Your task to perform on an android device: find which apps use the phone's location Image 0: 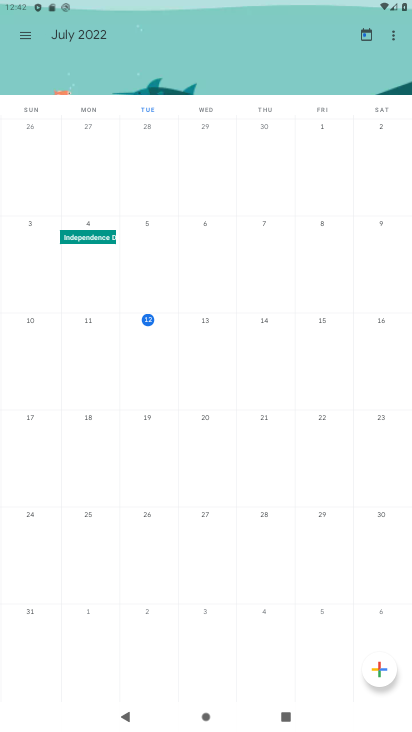
Step 0: press home button
Your task to perform on an android device: find which apps use the phone's location Image 1: 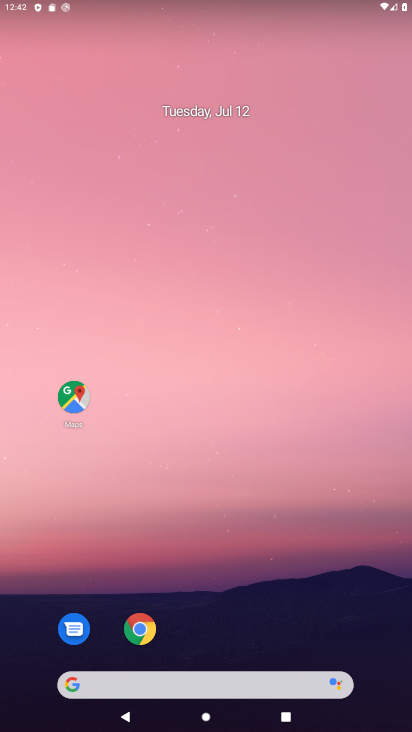
Step 1: drag from (206, 646) to (228, 6)
Your task to perform on an android device: find which apps use the phone's location Image 2: 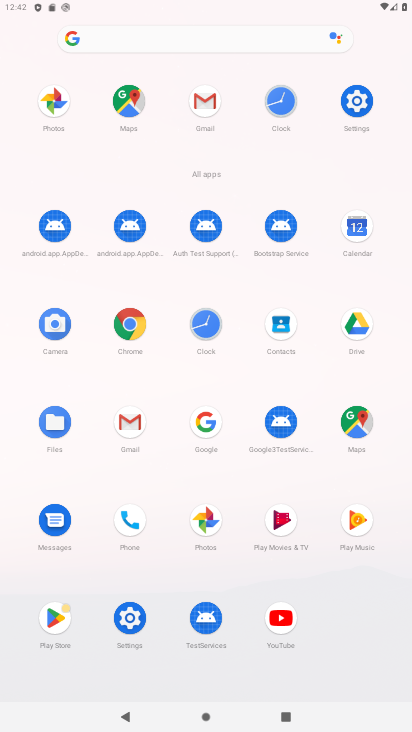
Step 2: click (354, 96)
Your task to perform on an android device: find which apps use the phone's location Image 3: 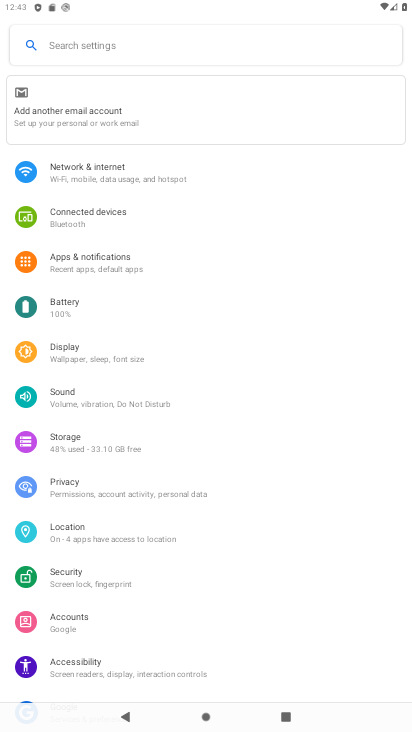
Step 3: click (95, 530)
Your task to perform on an android device: find which apps use the phone's location Image 4: 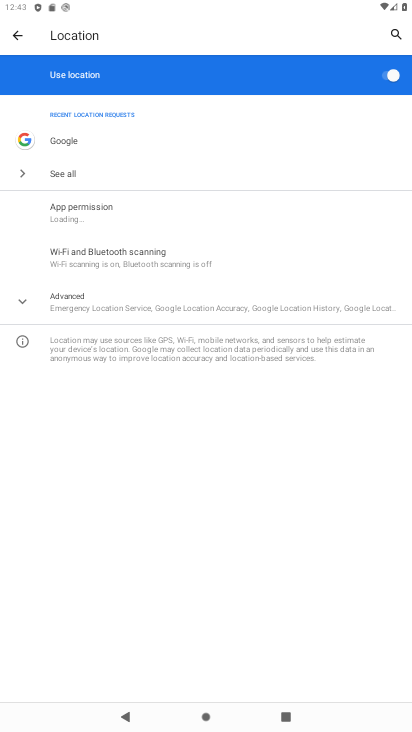
Step 4: click (106, 212)
Your task to perform on an android device: find which apps use the phone's location Image 5: 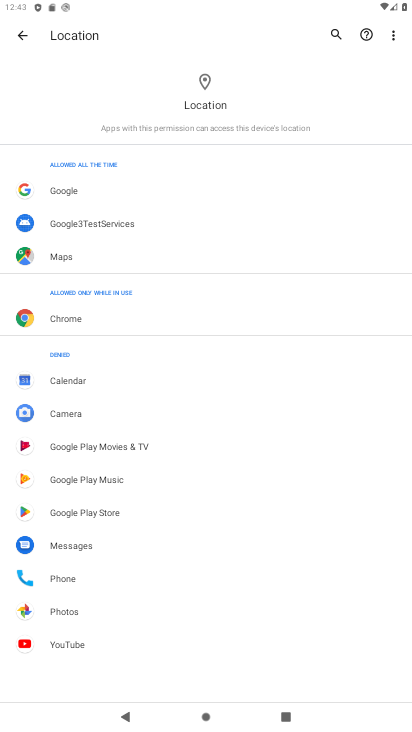
Step 5: task complete